Your task to perform on an android device: open the mobile data screen to see how much data has been used Image 0: 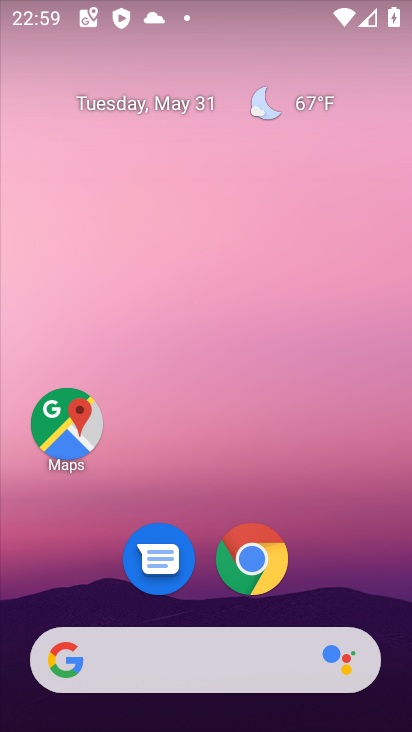
Step 0: drag from (314, 563) to (319, 76)
Your task to perform on an android device: open the mobile data screen to see how much data has been used Image 1: 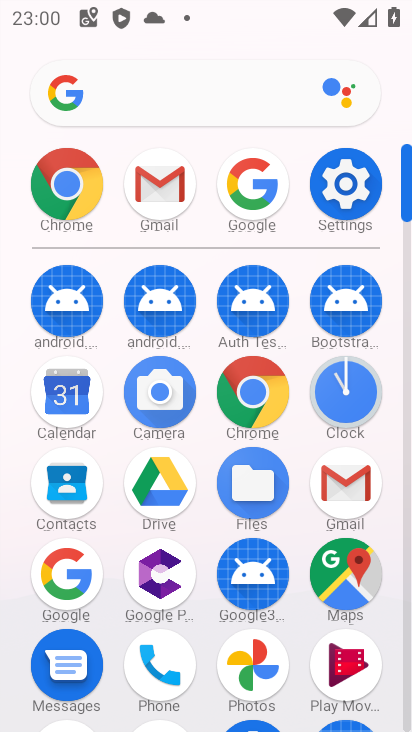
Step 1: click (337, 181)
Your task to perform on an android device: open the mobile data screen to see how much data has been used Image 2: 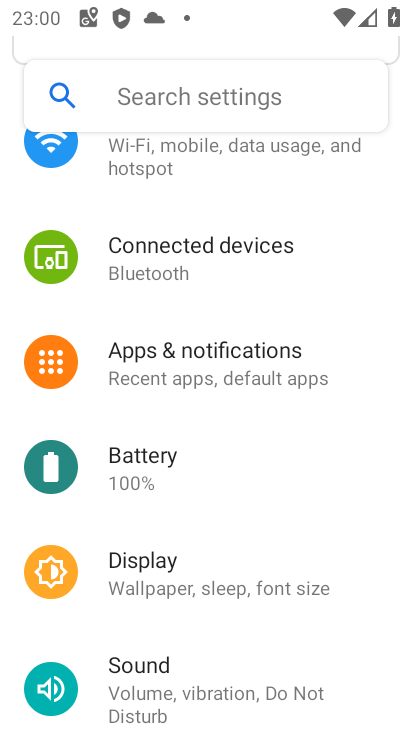
Step 2: click (130, 157)
Your task to perform on an android device: open the mobile data screen to see how much data has been used Image 3: 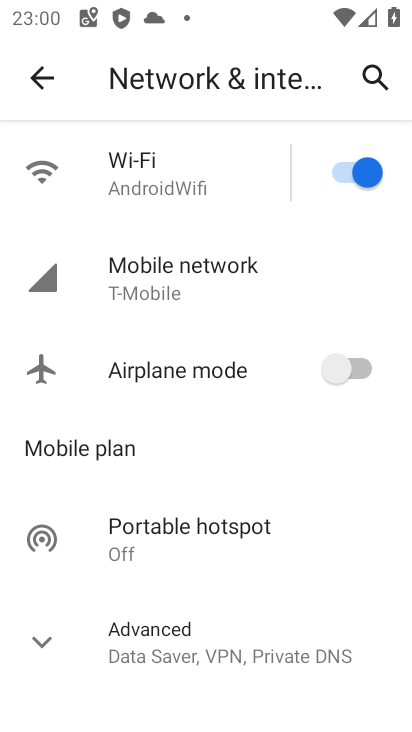
Step 3: click (195, 252)
Your task to perform on an android device: open the mobile data screen to see how much data has been used Image 4: 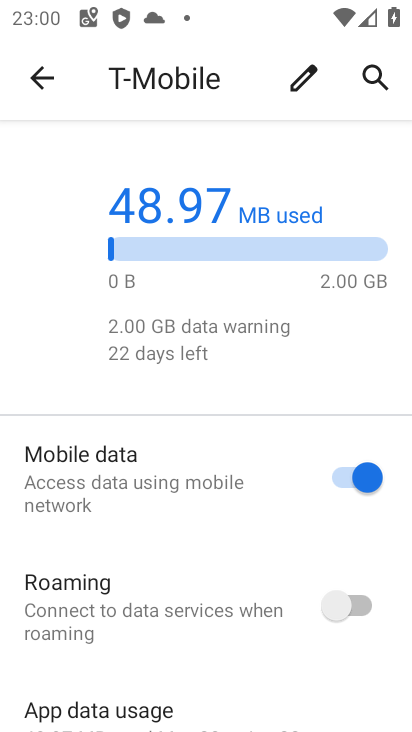
Step 4: task complete